Your task to perform on an android device: open sync settings in chrome Image 0: 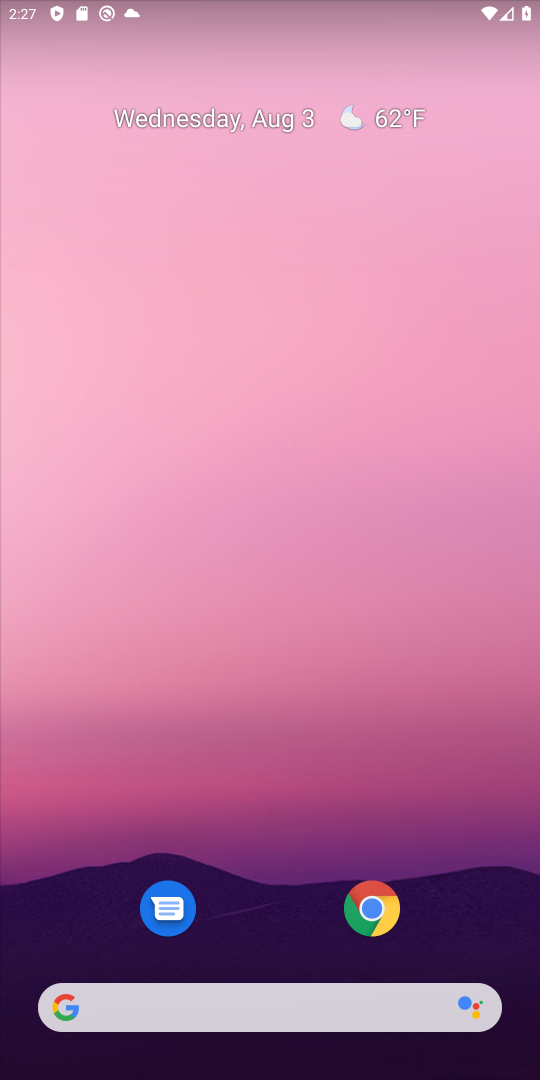
Step 0: click (363, 913)
Your task to perform on an android device: open sync settings in chrome Image 1: 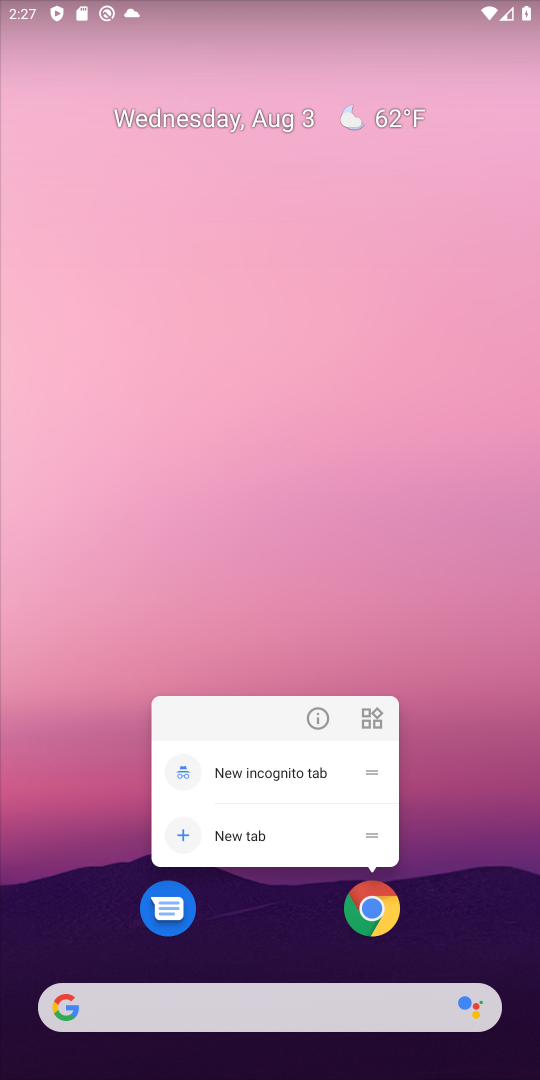
Step 1: click (363, 913)
Your task to perform on an android device: open sync settings in chrome Image 2: 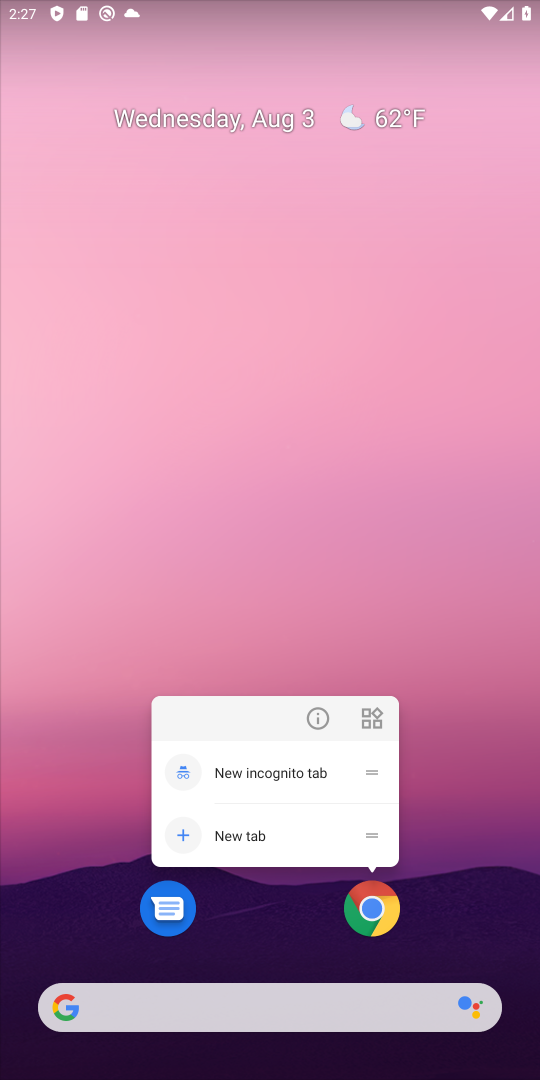
Step 2: click (363, 913)
Your task to perform on an android device: open sync settings in chrome Image 3: 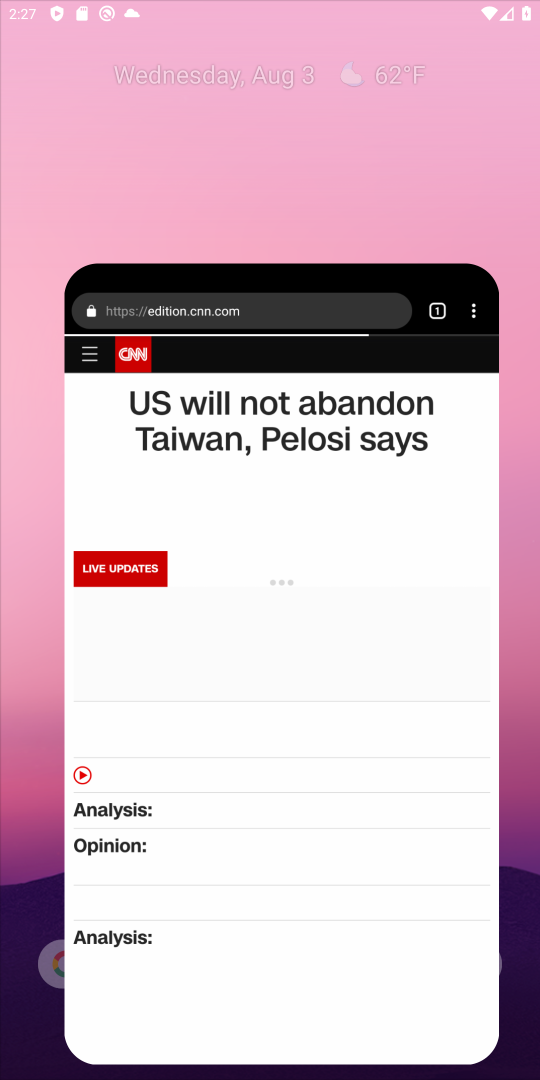
Step 3: click (363, 913)
Your task to perform on an android device: open sync settings in chrome Image 4: 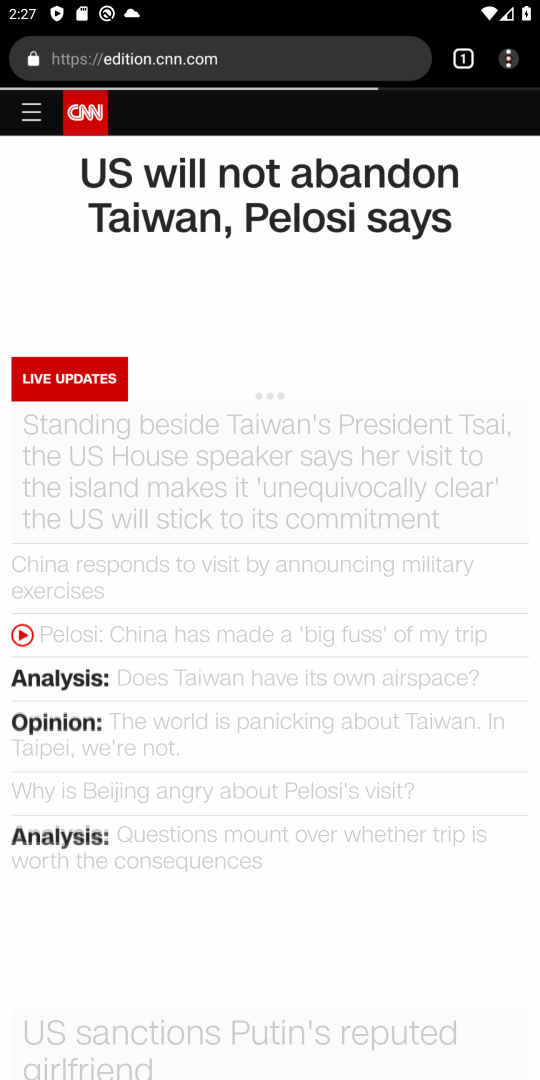
Step 4: click (504, 70)
Your task to perform on an android device: open sync settings in chrome Image 5: 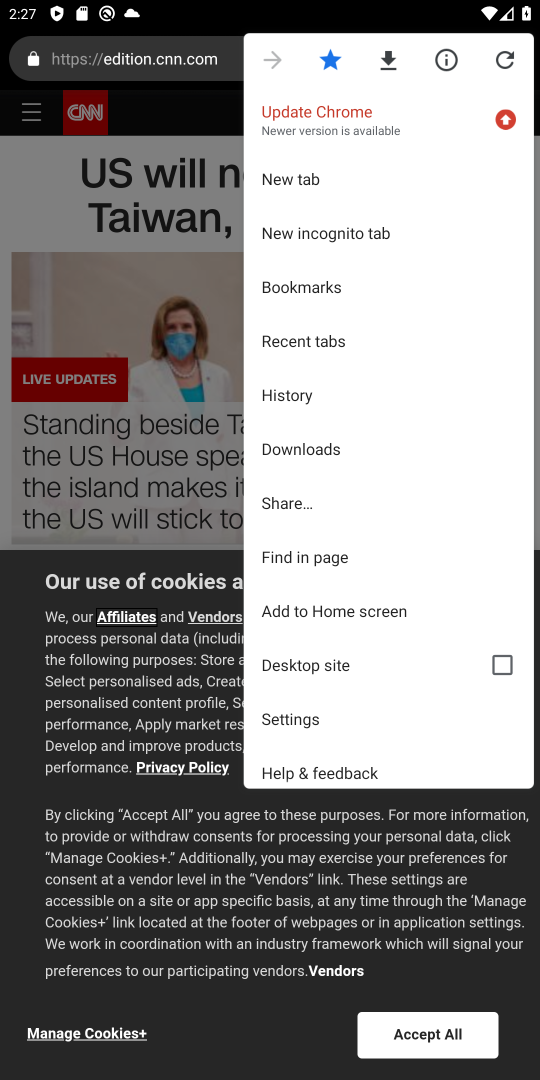
Step 5: click (345, 715)
Your task to perform on an android device: open sync settings in chrome Image 6: 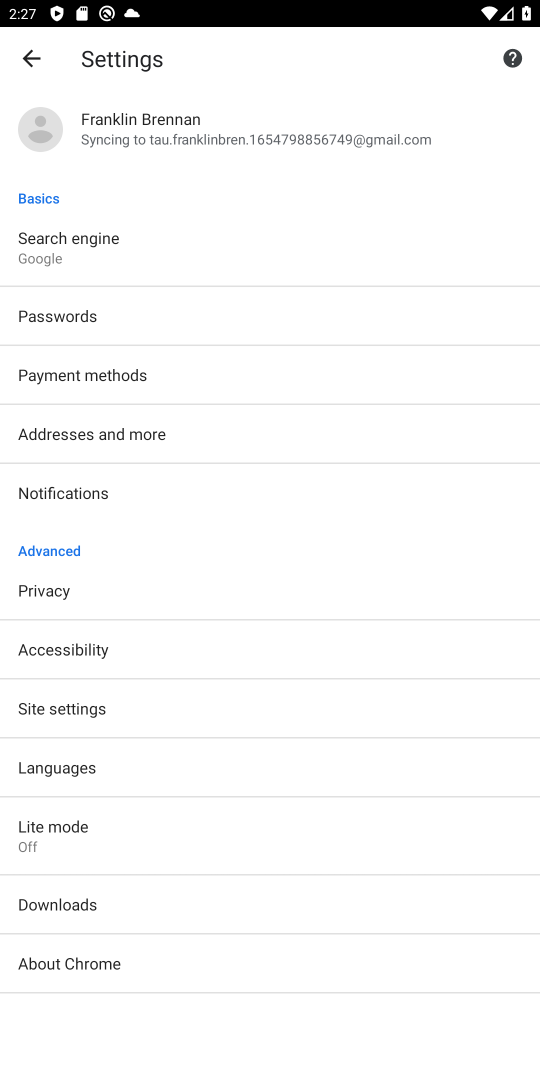
Step 6: click (221, 122)
Your task to perform on an android device: open sync settings in chrome Image 7: 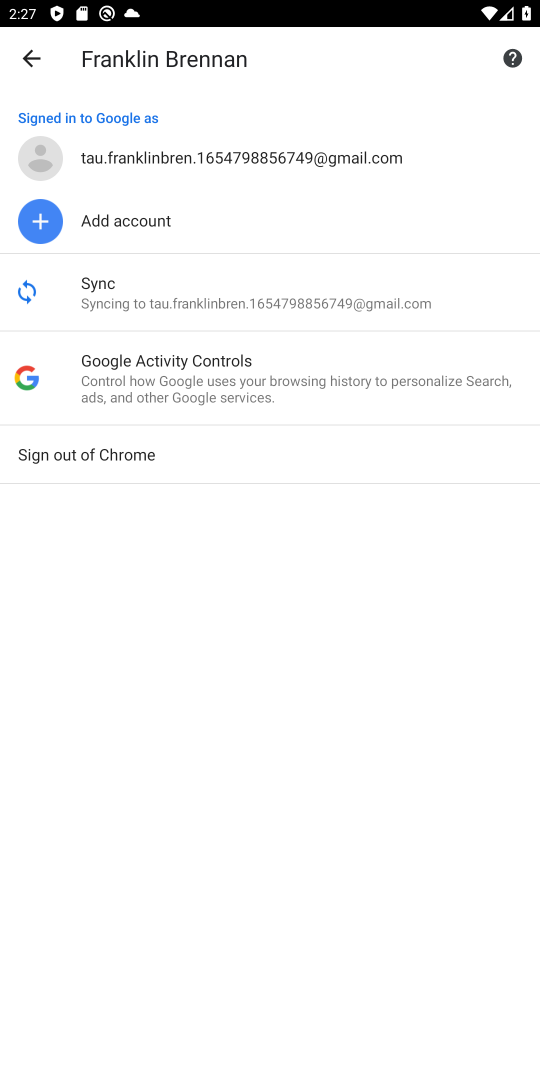
Step 7: task complete